Your task to perform on an android device: Set the phone to "Do not disturb". Image 0: 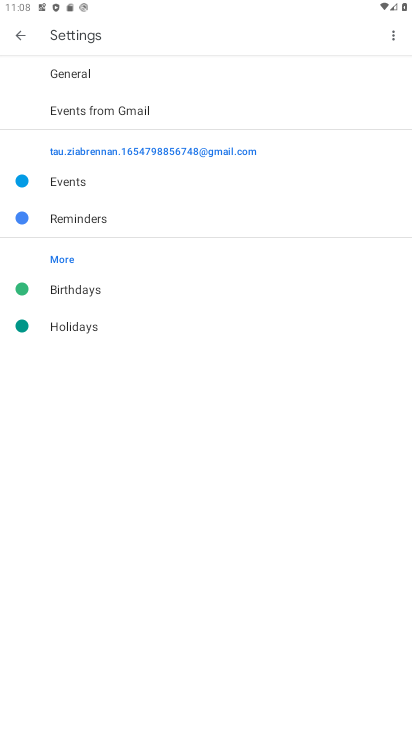
Step 0: press back button
Your task to perform on an android device: Set the phone to "Do not disturb". Image 1: 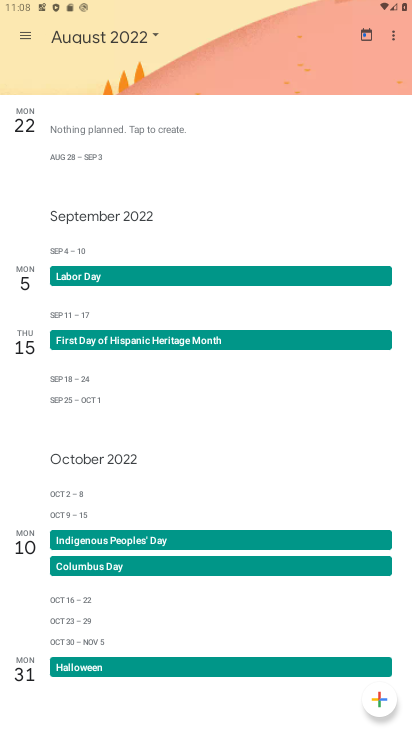
Step 1: press back button
Your task to perform on an android device: Set the phone to "Do not disturb". Image 2: 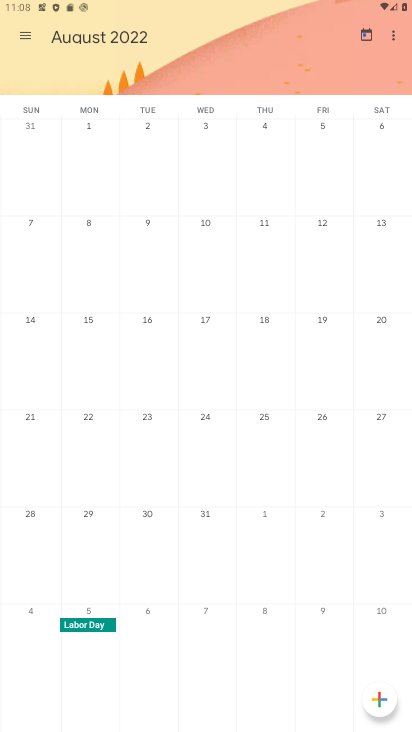
Step 2: drag from (197, 0) to (232, 472)
Your task to perform on an android device: Set the phone to "Do not disturb". Image 3: 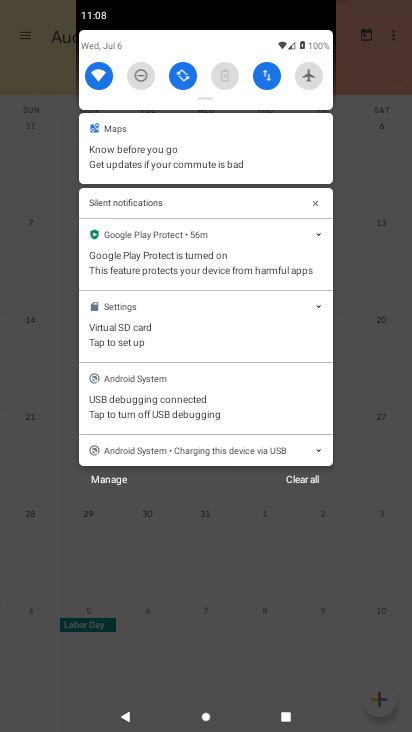
Step 3: click (139, 74)
Your task to perform on an android device: Set the phone to "Do not disturb". Image 4: 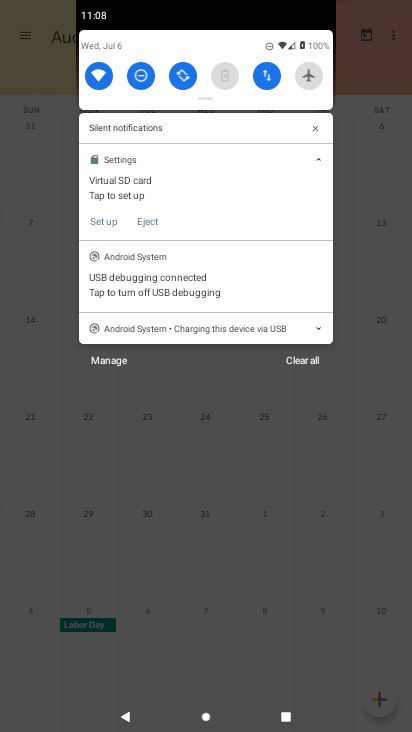
Step 4: task complete